Your task to perform on an android device: When is my next appointment? Image 0: 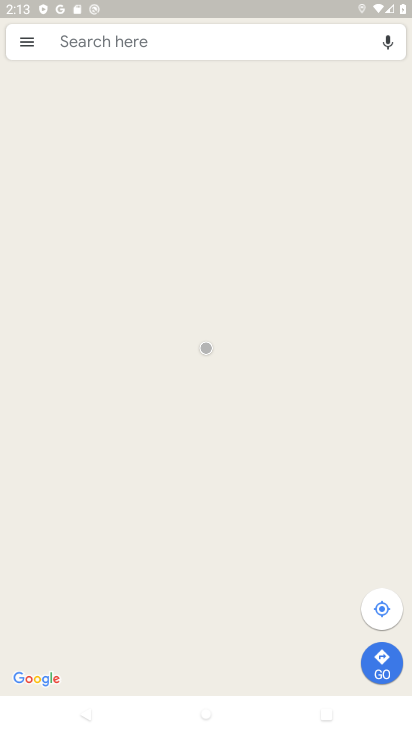
Step 0: press home button
Your task to perform on an android device: When is my next appointment? Image 1: 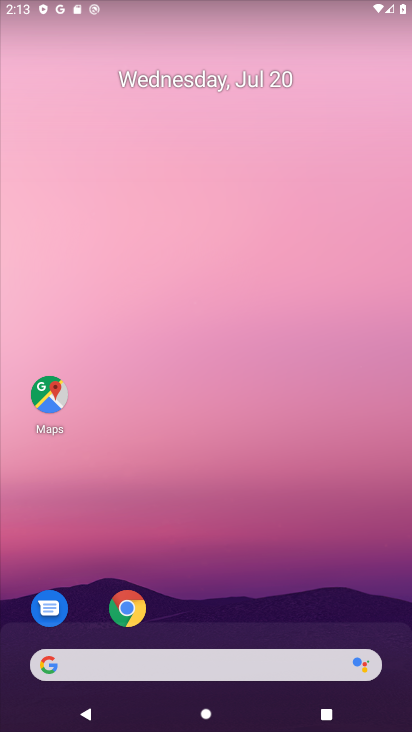
Step 1: drag from (226, 607) to (218, 151)
Your task to perform on an android device: When is my next appointment? Image 2: 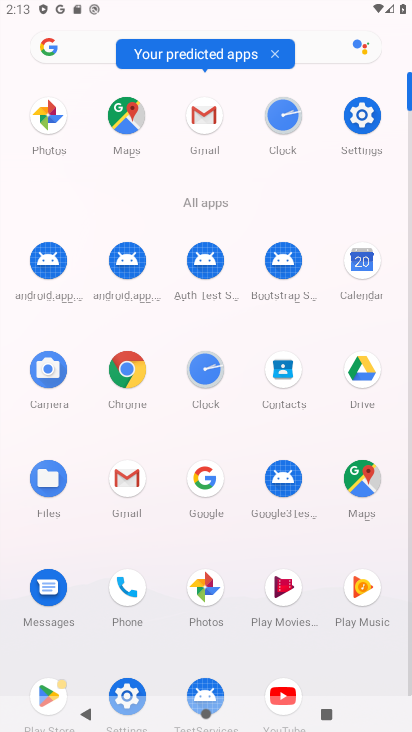
Step 2: click (369, 258)
Your task to perform on an android device: When is my next appointment? Image 3: 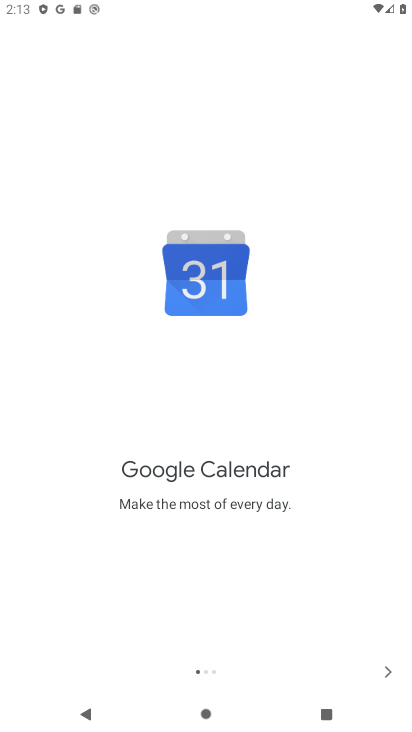
Step 3: click (391, 673)
Your task to perform on an android device: When is my next appointment? Image 4: 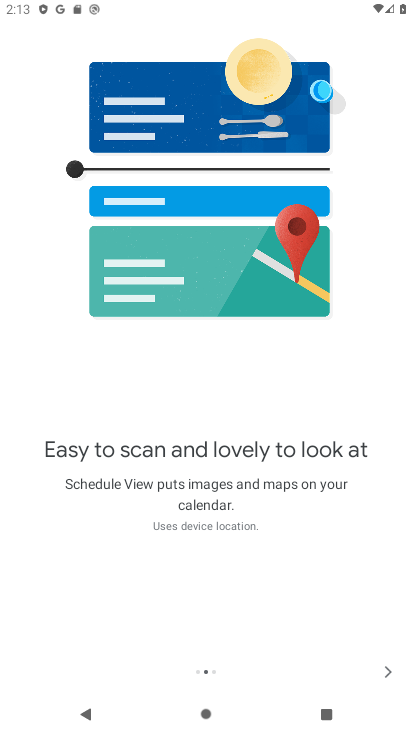
Step 4: click (391, 673)
Your task to perform on an android device: When is my next appointment? Image 5: 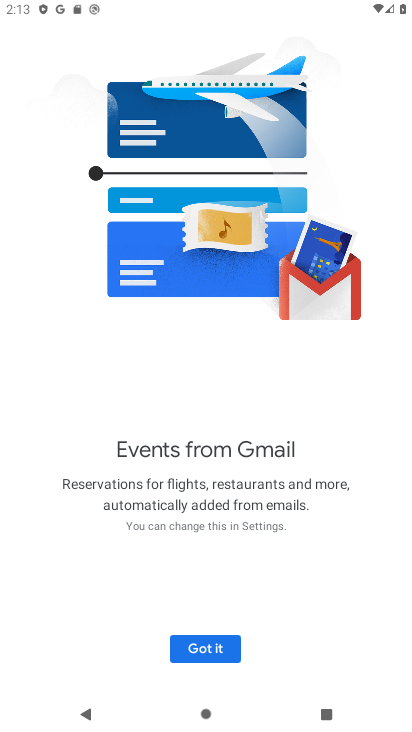
Step 5: click (186, 646)
Your task to perform on an android device: When is my next appointment? Image 6: 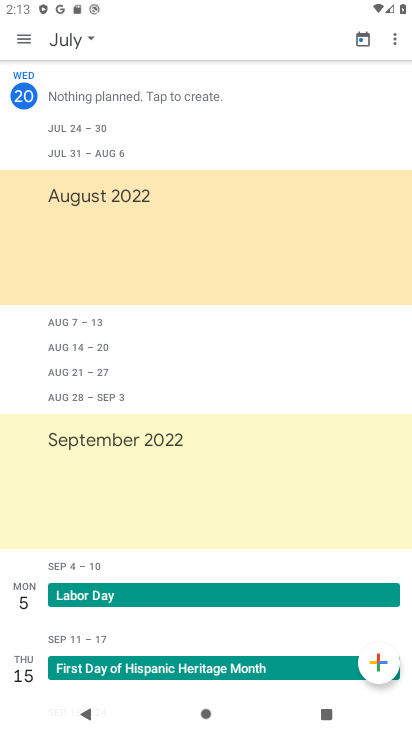
Step 6: click (60, 42)
Your task to perform on an android device: When is my next appointment? Image 7: 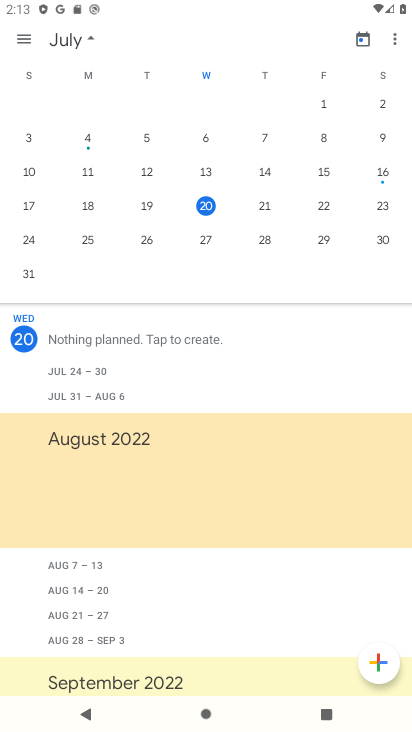
Step 7: click (27, 34)
Your task to perform on an android device: When is my next appointment? Image 8: 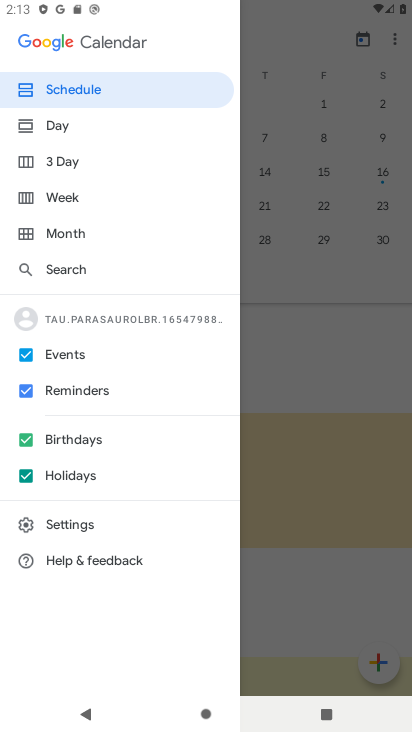
Step 8: click (56, 192)
Your task to perform on an android device: When is my next appointment? Image 9: 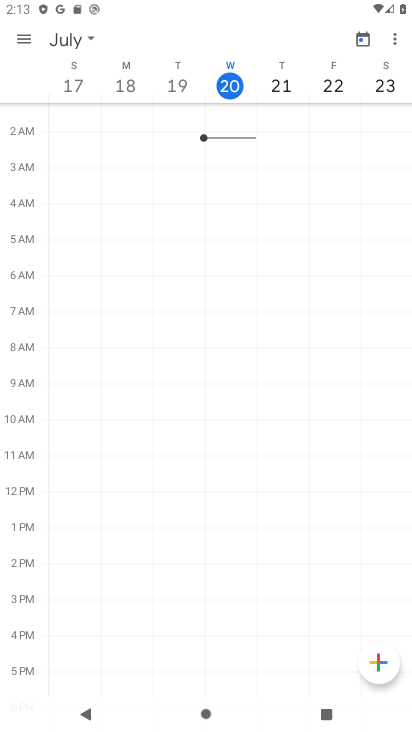
Step 9: drag from (360, 178) to (26, 175)
Your task to perform on an android device: When is my next appointment? Image 10: 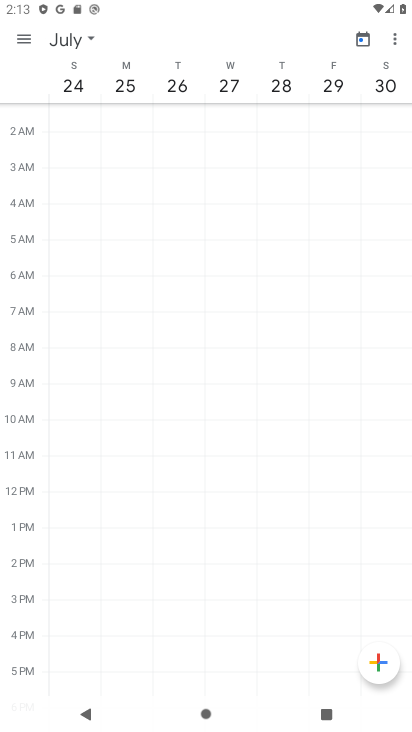
Step 10: click (55, 213)
Your task to perform on an android device: When is my next appointment? Image 11: 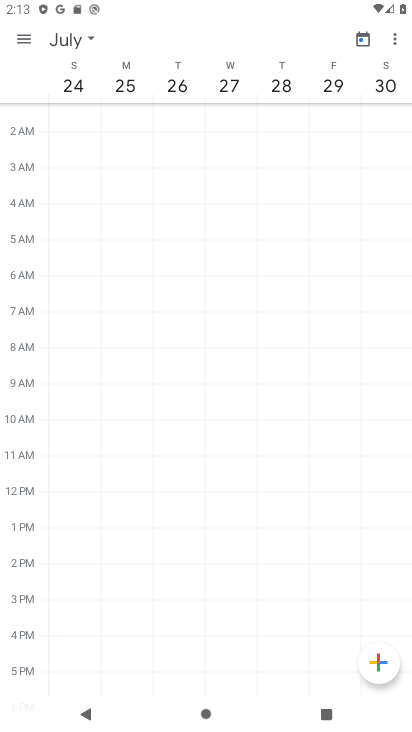
Step 11: click (79, 36)
Your task to perform on an android device: When is my next appointment? Image 12: 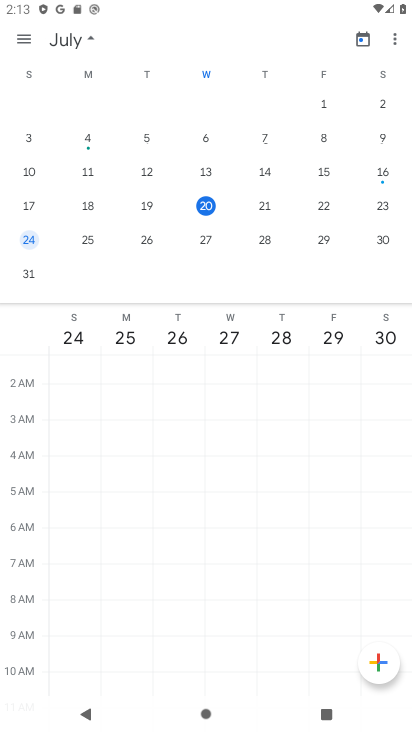
Step 12: drag from (335, 166) to (71, 145)
Your task to perform on an android device: When is my next appointment? Image 13: 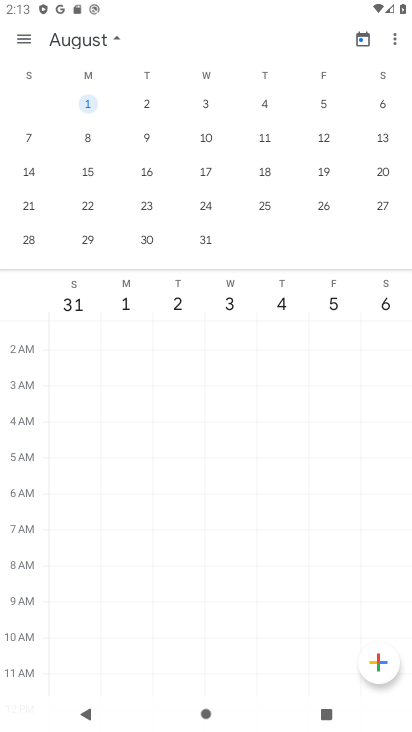
Step 13: drag from (277, 164) to (10, 188)
Your task to perform on an android device: When is my next appointment? Image 14: 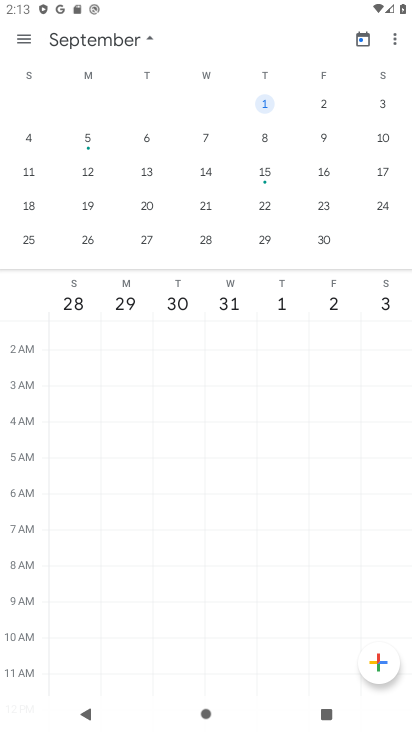
Step 14: drag from (347, 182) to (12, 190)
Your task to perform on an android device: When is my next appointment? Image 15: 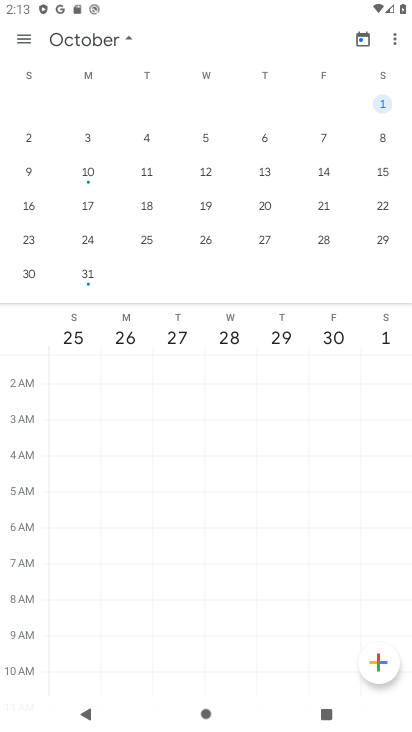
Step 15: click (84, 168)
Your task to perform on an android device: When is my next appointment? Image 16: 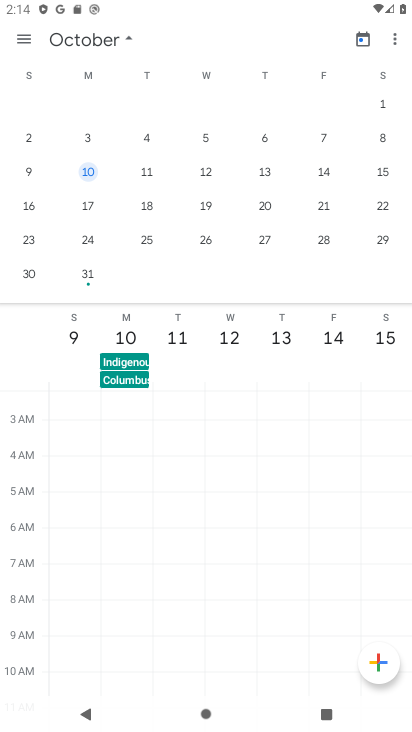
Step 16: task complete